Your task to perform on an android device: turn on airplane mode Image 0: 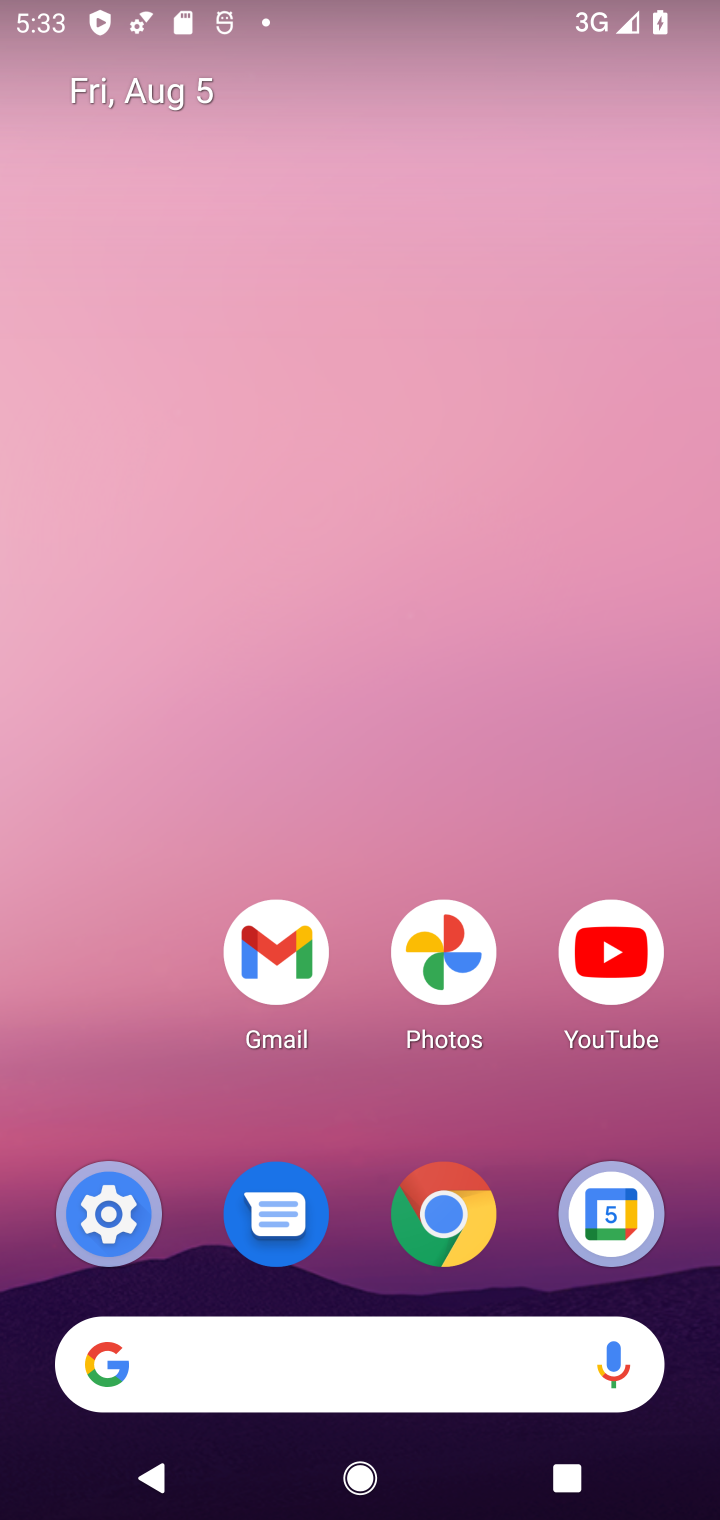
Step 0: drag from (136, 998) to (141, 0)
Your task to perform on an android device: turn on airplane mode Image 1: 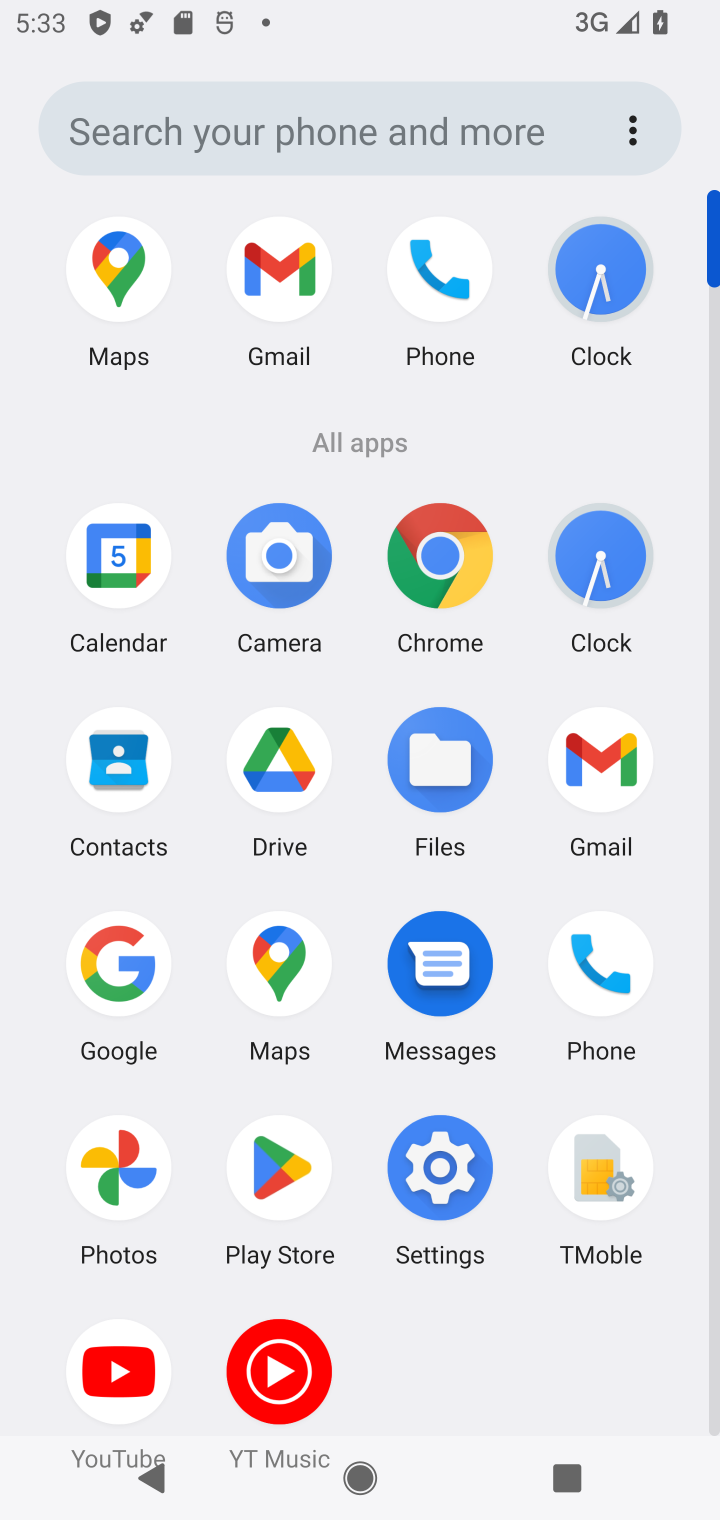
Step 1: click (449, 1180)
Your task to perform on an android device: turn on airplane mode Image 2: 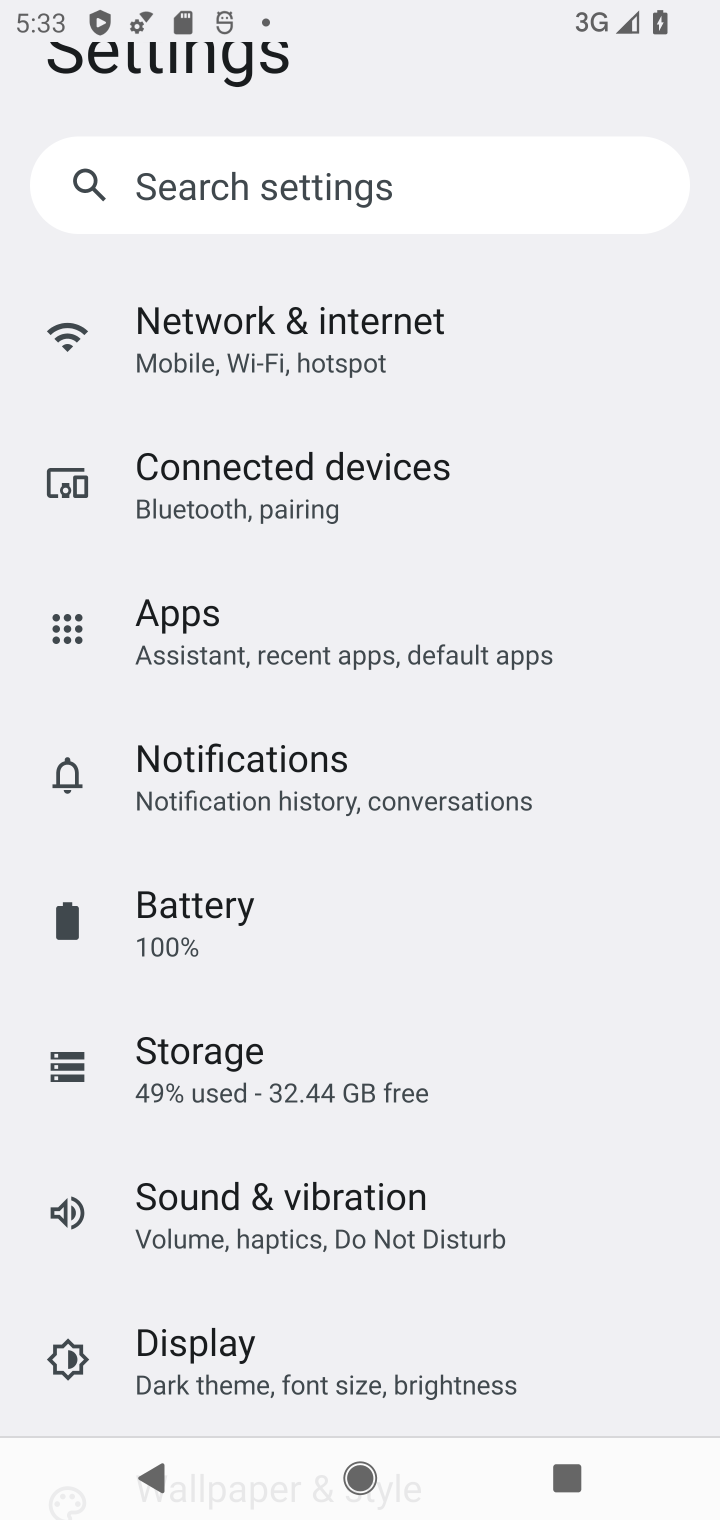
Step 2: click (384, 347)
Your task to perform on an android device: turn on airplane mode Image 3: 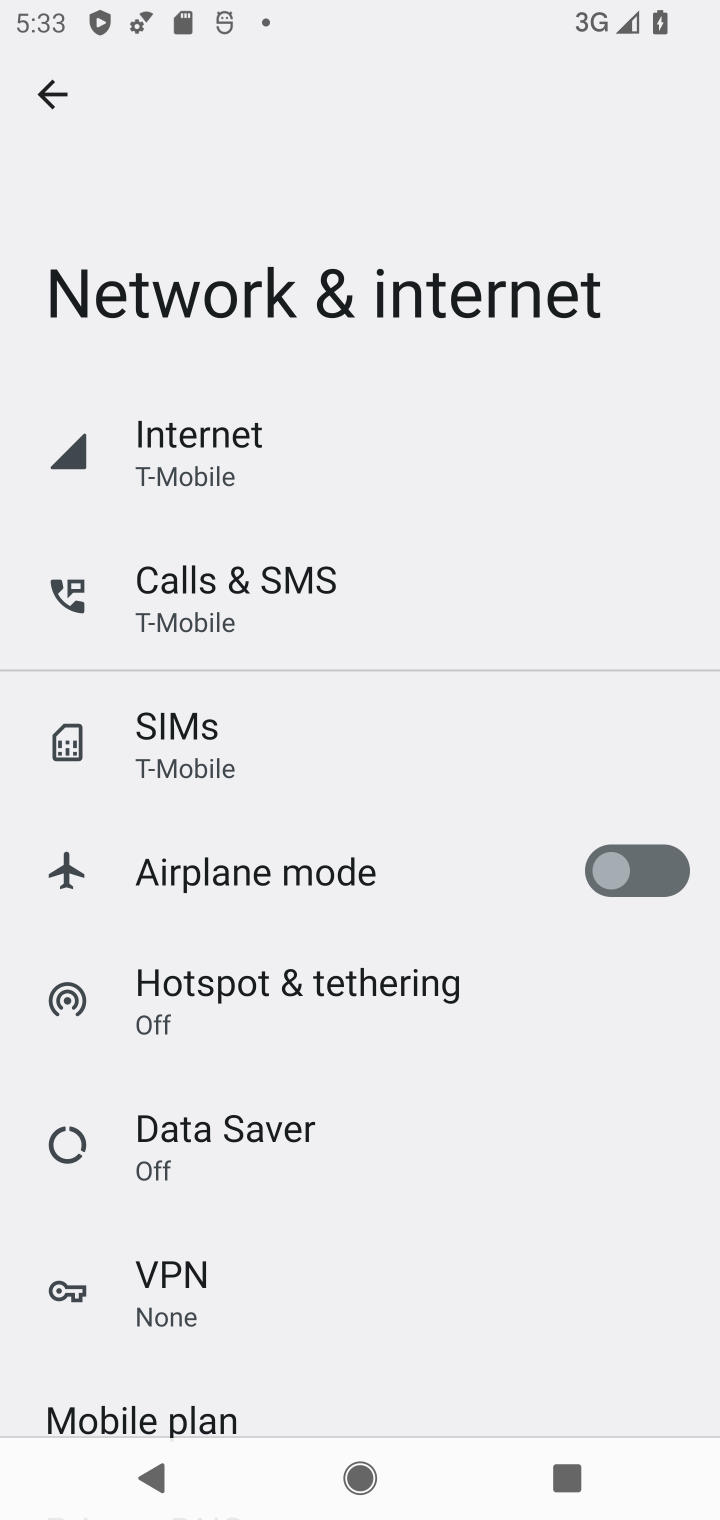
Step 3: click (639, 873)
Your task to perform on an android device: turn on airplane mode Image 4: 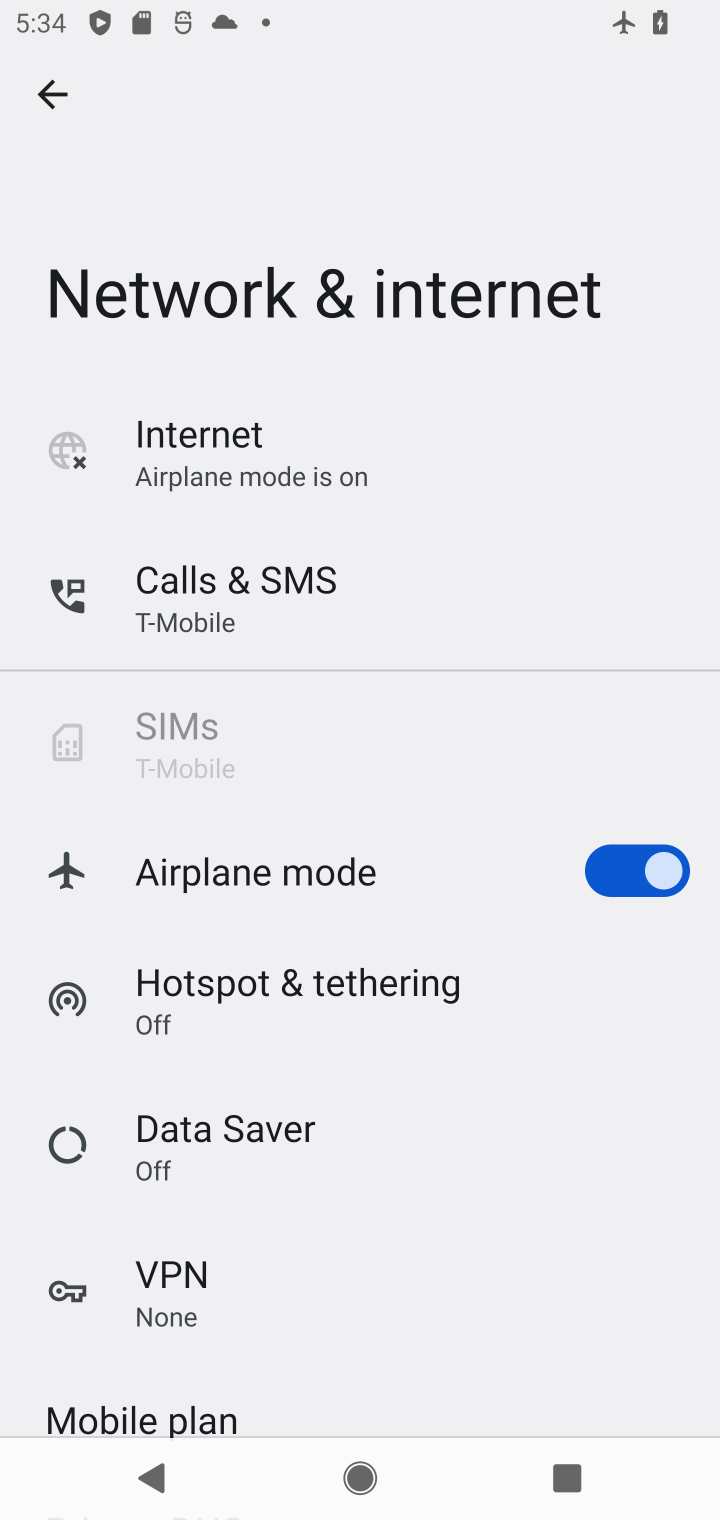
Step 4: task complete